Your task to perform on an android device: Go to Yahoo.com Image 0: 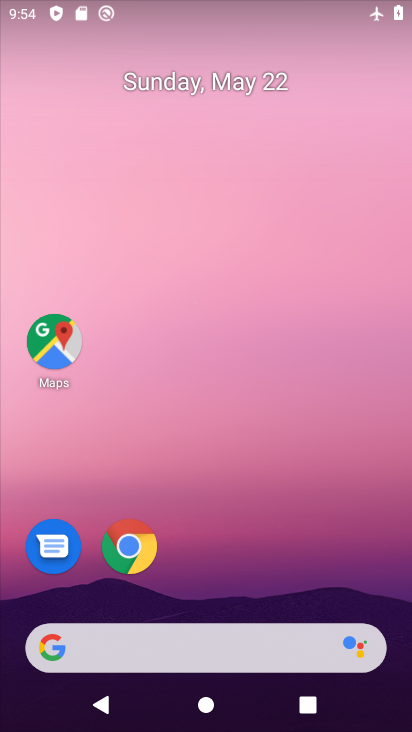
Step 0: drag from (237, 132) to (233, 16)
Your task to perform on an android device: Go to Yahoo.com Image 1: 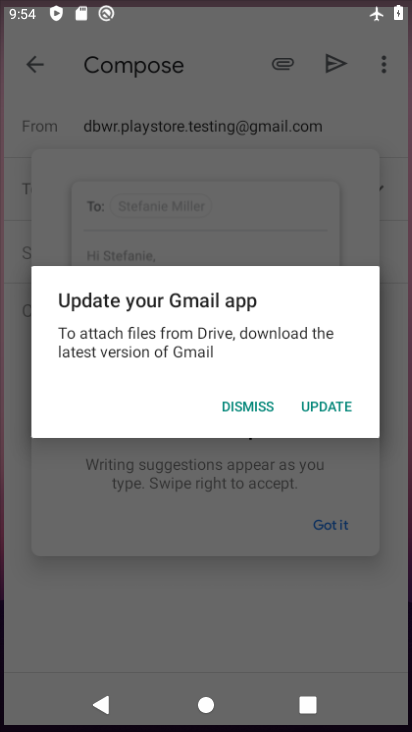
Step 1: drag from (266, 576) to (195, 28)
Your task to perform on an android device: Go to Yahoo.com Image 2: 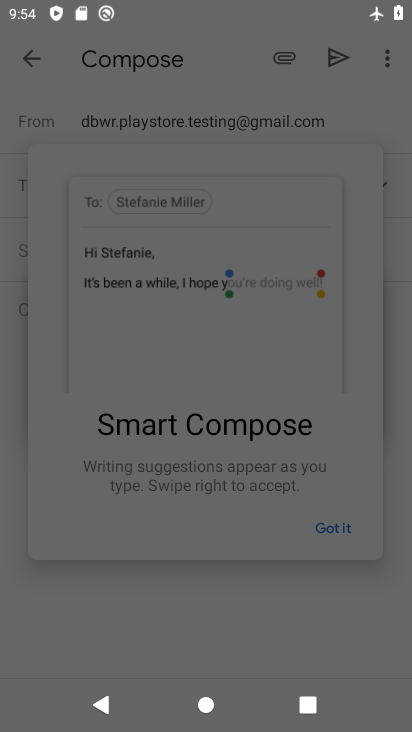
Step 2: press back button
Your task to perform on an android device: Go to Yahoo.com Image 3: 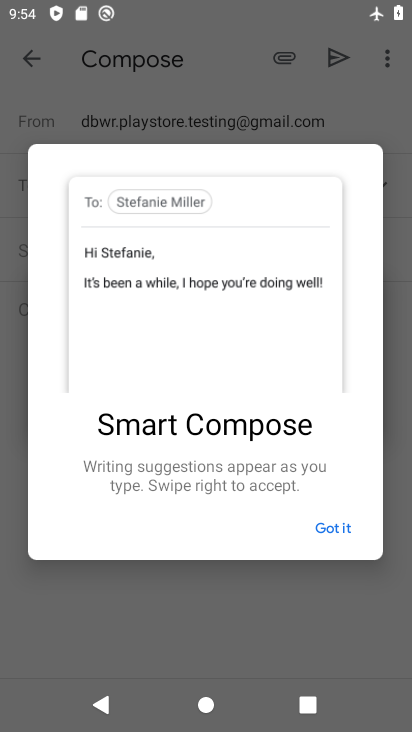
Step 3: press home button
Your task to perform on an android device: Go to Yahoo.com Image 4: 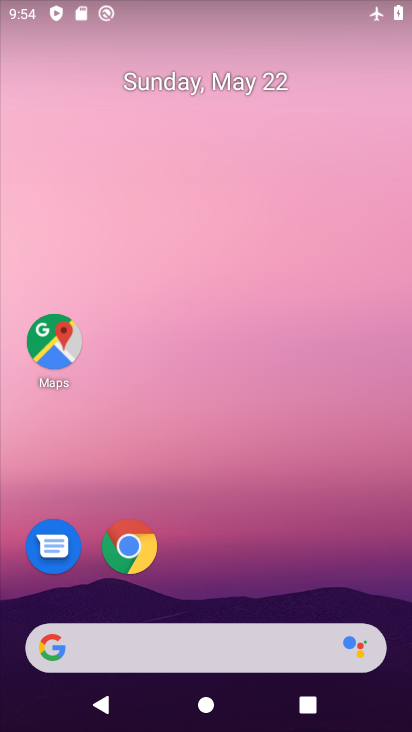
Step 4: drag from (252, 545) to (228, 26)
Your task to perform on an android device: Go to Yahoo.com Image 5: 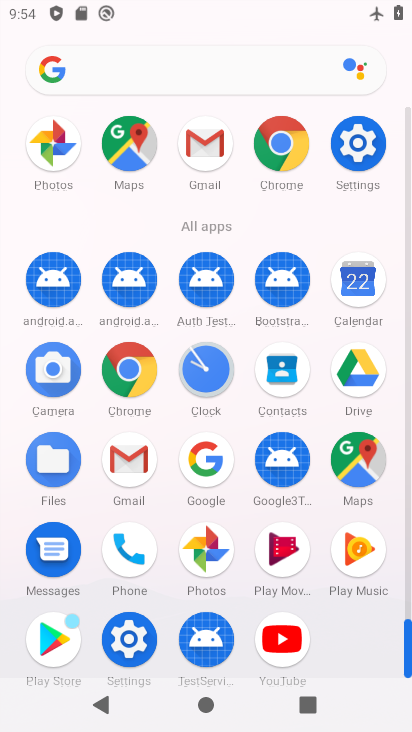
Step 5: click (131, 369)
Your task to perform on an android device: Go to Yahoo.com Image 6: 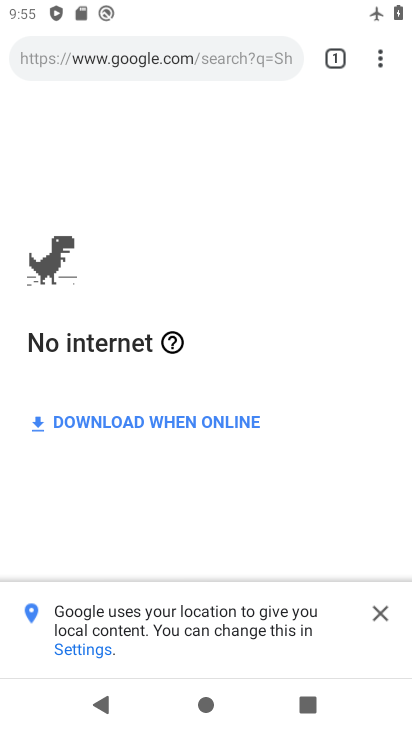
Step 6: drag from (275, 1) to (328, 458)
Your task to perform on an android device: Go to Yahoo.com Image 7: 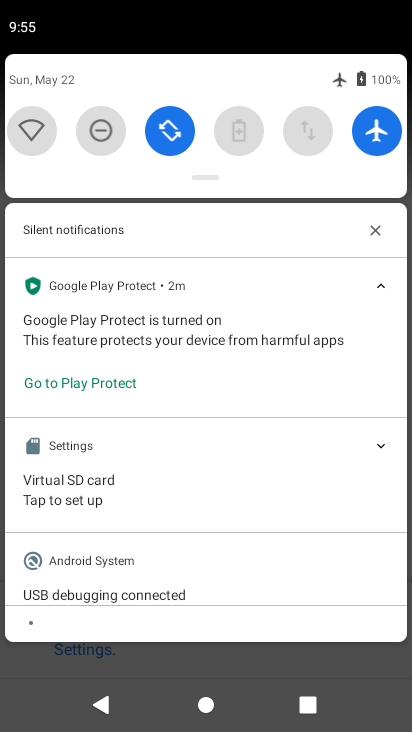
Step 7: click (27, 111)
Your task to perform on an android device: Go to Yahoo.com Image 8: 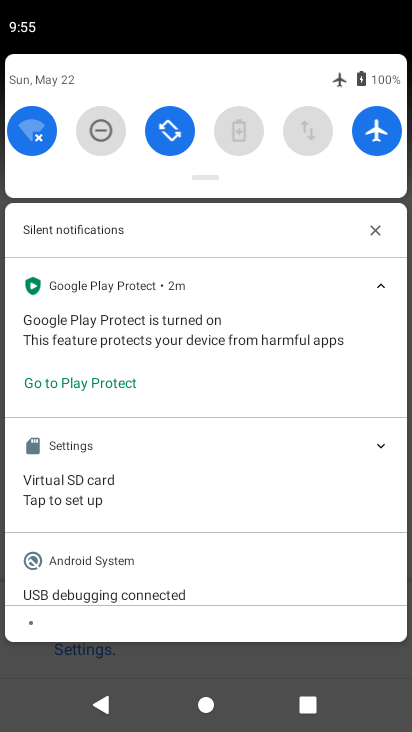
Step 8: drag from (277, 687) to (266, 156)
Your task to perform on an android device: Go to Yahoo.com Image 9: 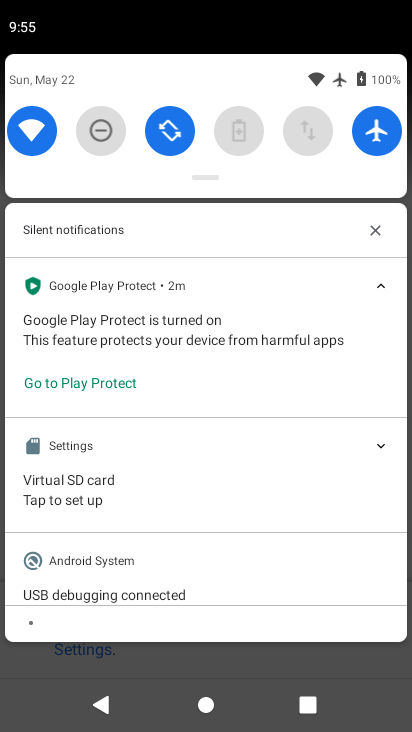
Step 9: drag from (40, 672) to (136, 67)
Your task to perform on an android device: Go to Yahoo.com Image 10: 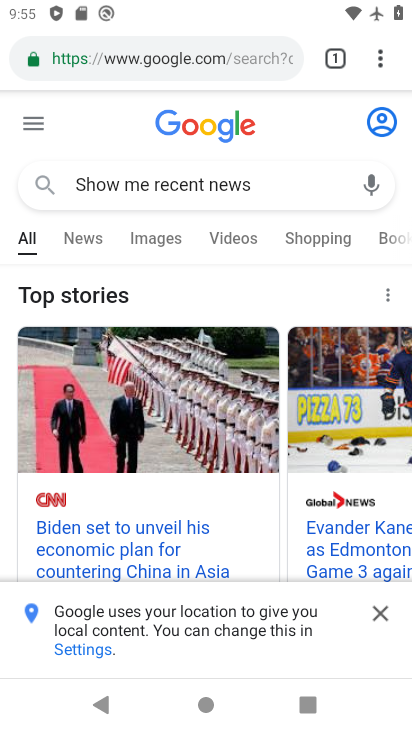
Step 10: click (168, 66)
Your task to perform on an android device: Go to Yahoo.com Image 11: 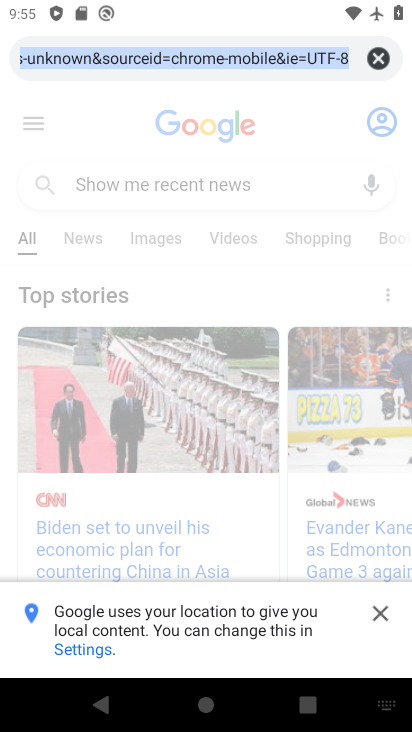
Step 11: click (379, 59)
Your task to perform on an android device: Go to Yahoo.com Image 12: 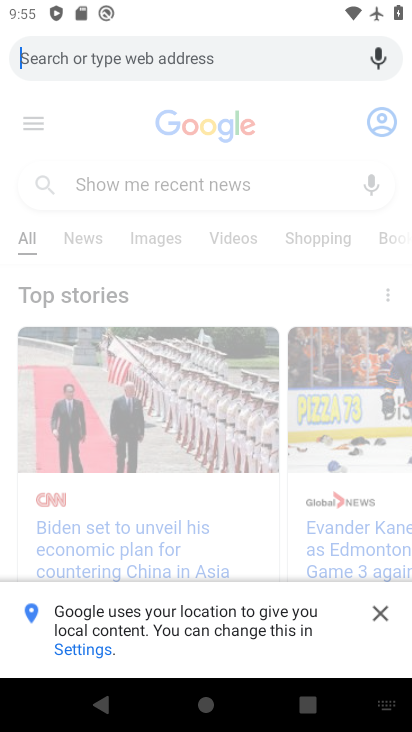
Step 12: type "Yahoo.com"
Your task to perform on an android device: Go to Yahoo.com Image 13: 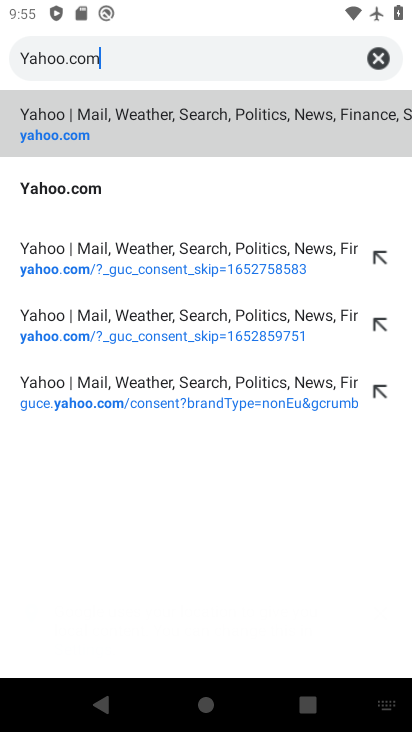
Step 13: type ""
Your task to perform on an android device: Go to Yahoo.com Image 14: 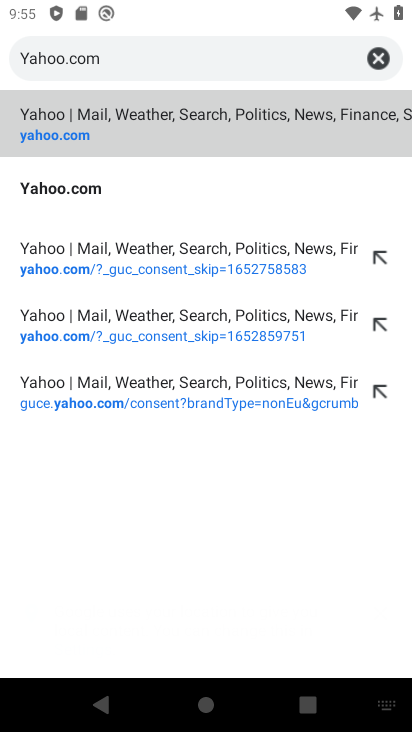
Step 14: click (127, 188)
Your task to perform on an android device: Go to Yahoo.com Image 15: 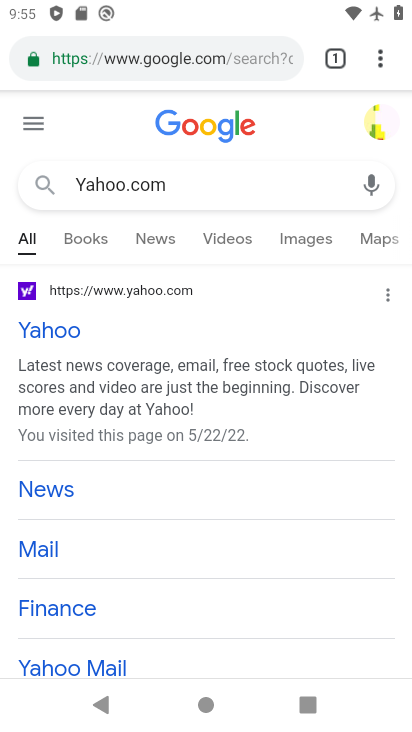
Step 15: click (20, 325)
Your task to perform on an android device: Go to Yahoo.com Image 16: 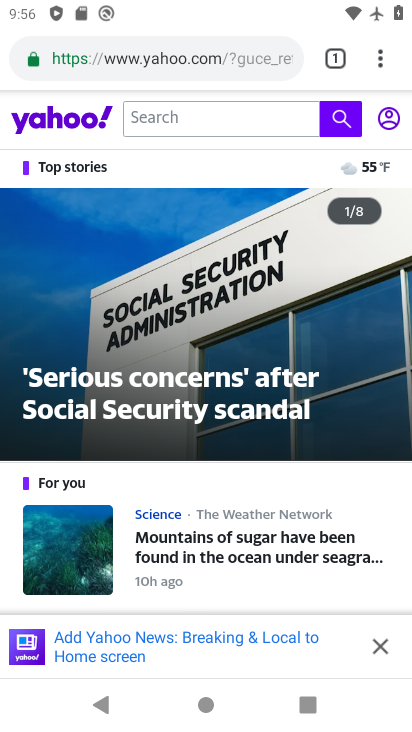
Step 16: task complete